Your task to perform on an android device: turn notification dots on Image 0: 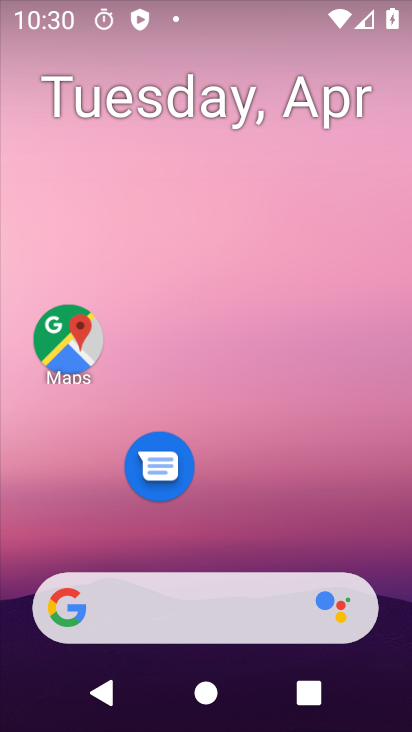
Step 0: drag from (251, 525) to (225, 118)
Your task to perform on an android device: turn notification dots on Image 1: 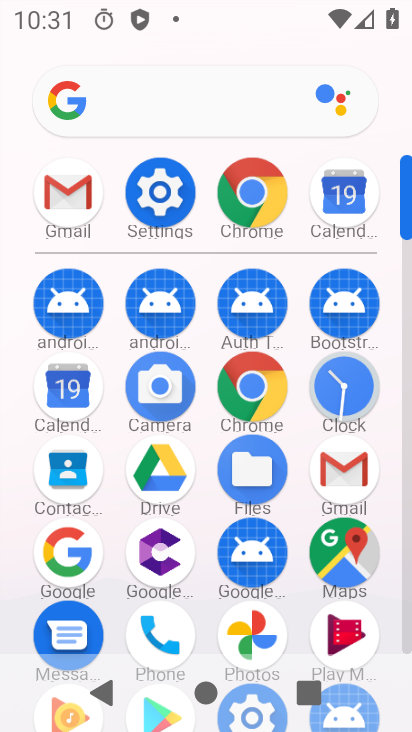
Step 1: click (158, 212)
Your task to perform on an android device: turn notification dots on Image 2: 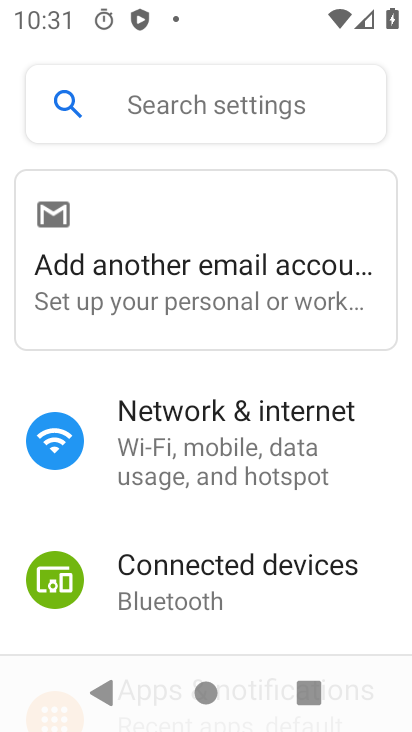
Step 2: drag from (201, 537) to (252, 174)
Your task to perform on an android device: turn notification dots on Image 3: 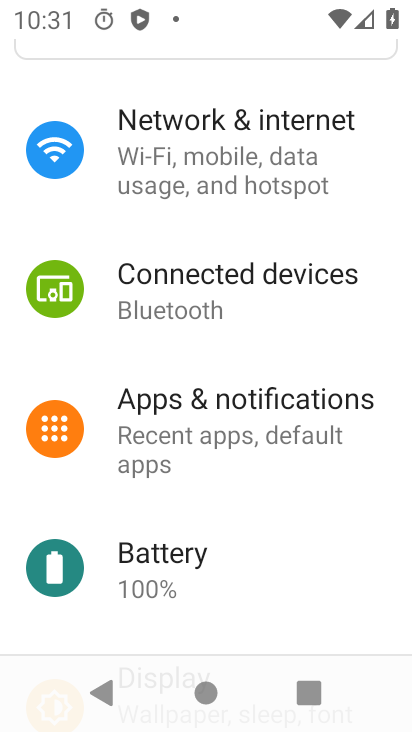
Step 3: drag from (238, 490) to (268, 198)
Your task to perform on an android device: turn notification dots on Image 4: 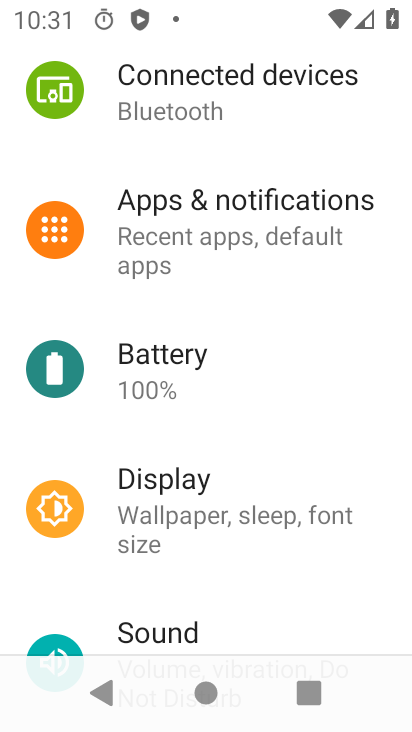
Step 4: drag from (240, 558) to (255, 181)
Your task to perform on an android device: turn notification dots on Image 5: 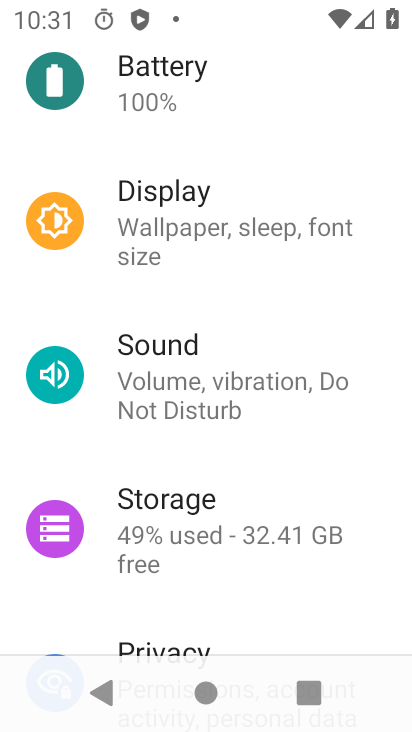
Step 5: drag from (209, 414) to (209, 184)
Your task to perform on an android device: turn notification dots on Image 6: 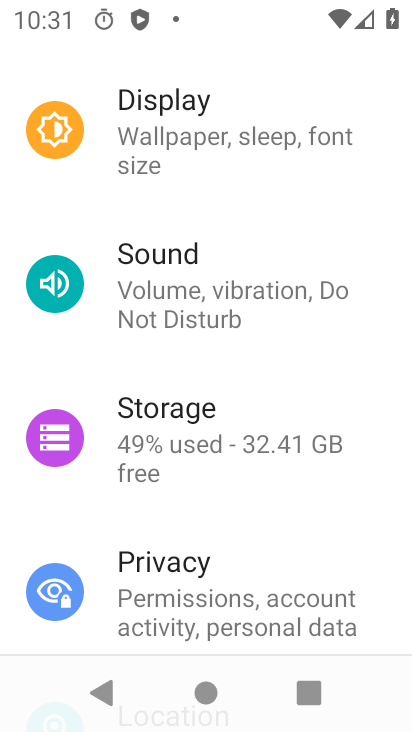
Step 6: drag from (172, 528) to (237, 218)
Your task to perform on an android device: turn notification dots on Image 7: 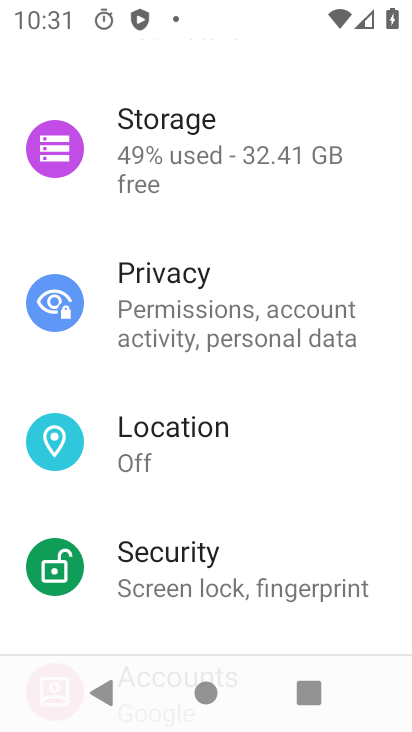
Step 7: click (237, 455)
Your task to perform on an android device: turn notification dots on Image 8: 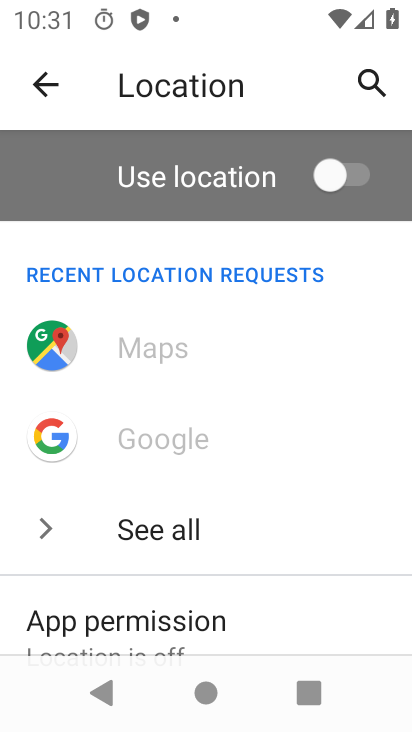
Step 8: drag from (240, 586) to (266, 241)
Your task to perform on an android device: turn notification dots on Image 9: 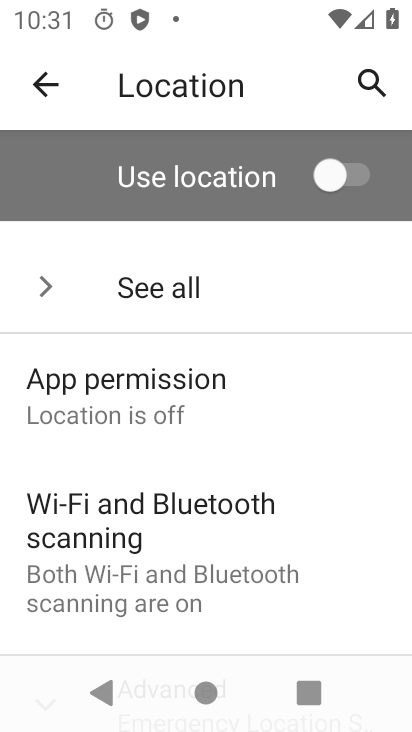
Step 9: drag from (222, 509) to (234, 342)
Your task to perform on an android device: turn notification dots on Image 10: 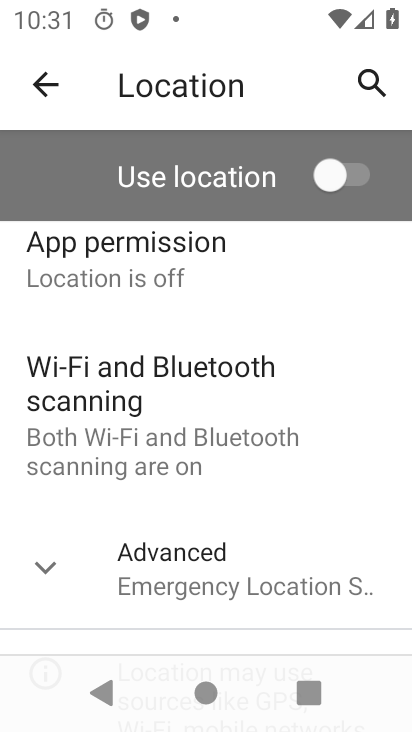
Step 10: drag from (233, 510) to (271, 287)
Your task to perform on an android device: turn notification dots on Image 11: 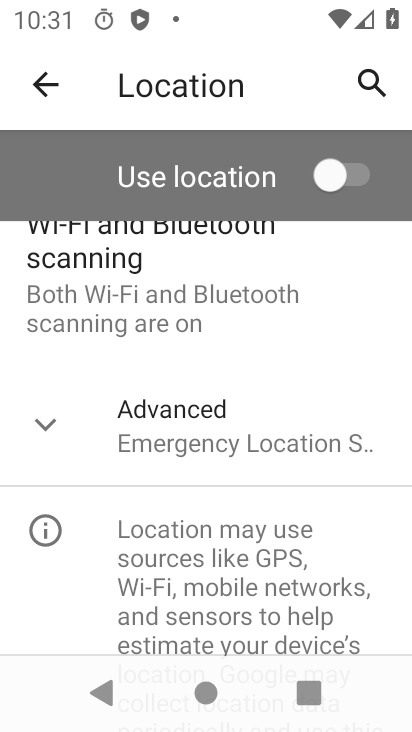
Step 11: click (212, 443)
Your task to perform on an android device: turn notification dots on Image 12: 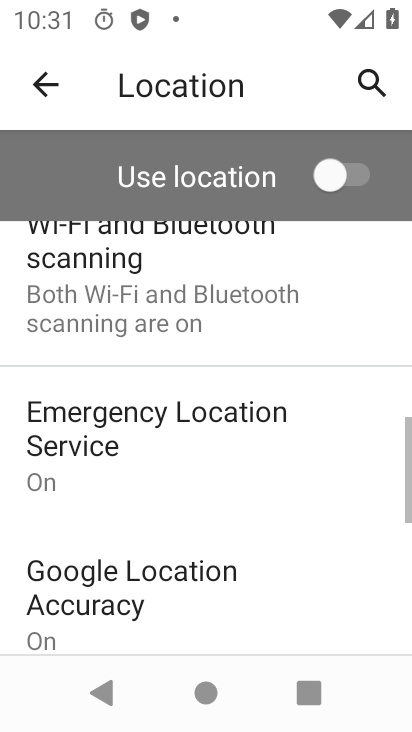
Step 12: drag from (219, 543) to (242, 363)
Your task to perform on an android device: turn notification dots on Image 13: 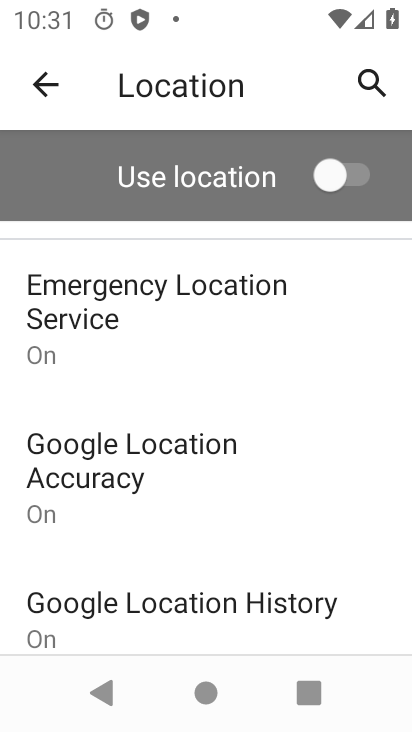
Step 13: drag from (197, 521) to (205, 468)
Your task to perform on an android device: turn notification dots on Image 14: 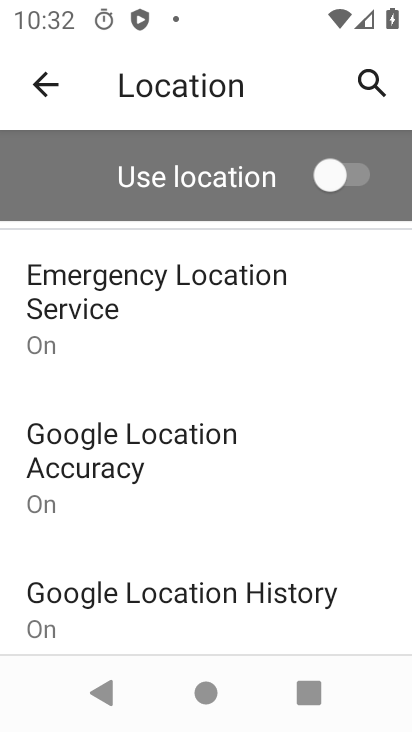
Step 14: click (167, 585)
Your task to perform on an android device: turn notification dots on Image 15: 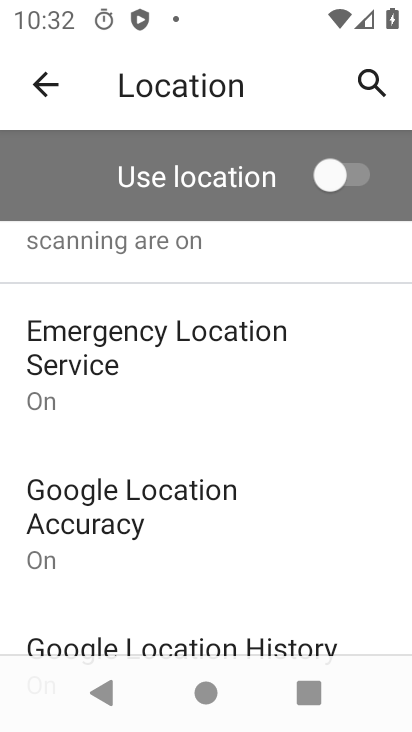
Step 15: drag from (191, 328) to (191, 519)
Your task to perform on an android device: turn notification dots on Image 16: 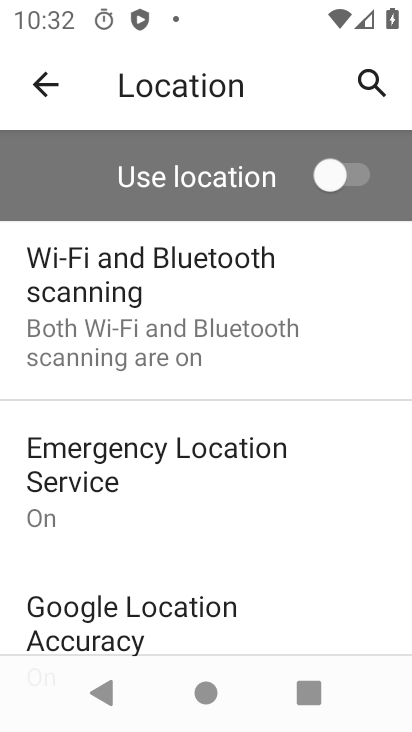
Step 16: drag from (208, 346) to (192, 630)
Your task to perform on an android device: turn notification dots on Image 17: 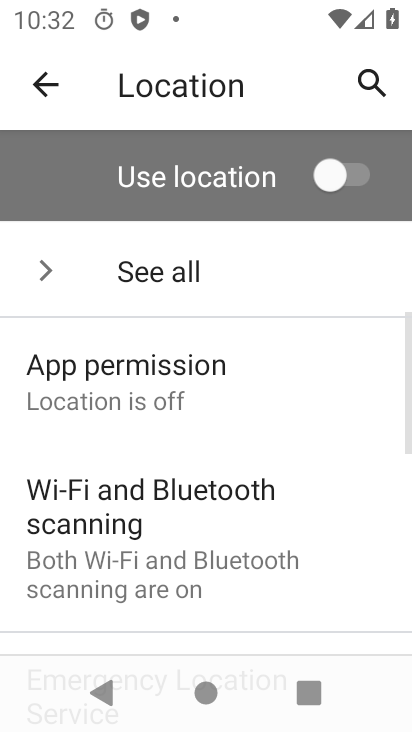
Step 17: drag from (235, 316) to (213, 469)
Your task to perform on an android device: turn notification dots on Image 18: 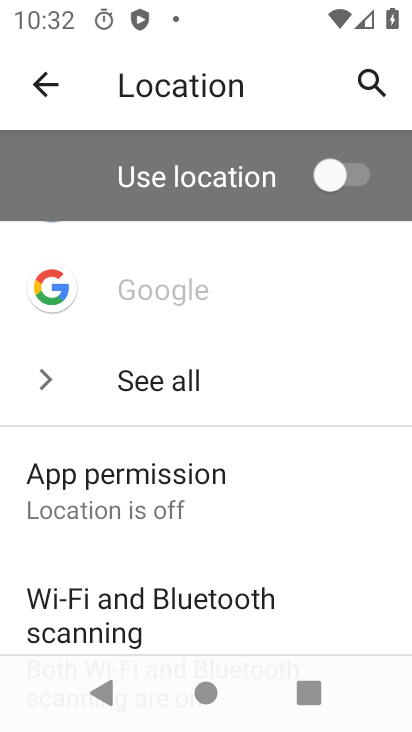
Step 18: click (211, 680)
Your task to perform on an android device: turn notification dots on Image 19: 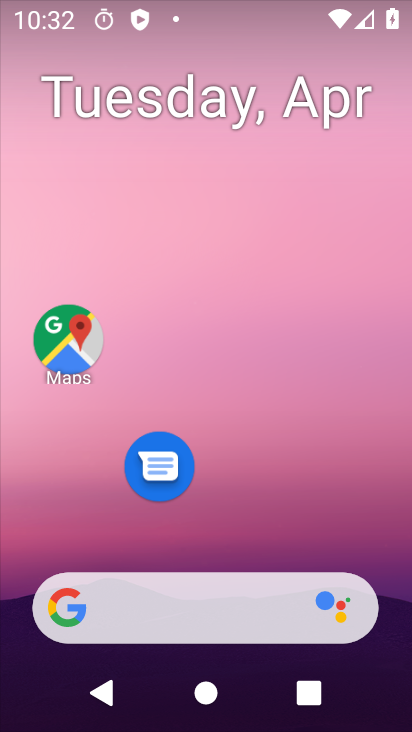
Step 19: drag from (281, 530) to (294, 84)
Your task to perform on an android device: turn notification dots on Image 20: 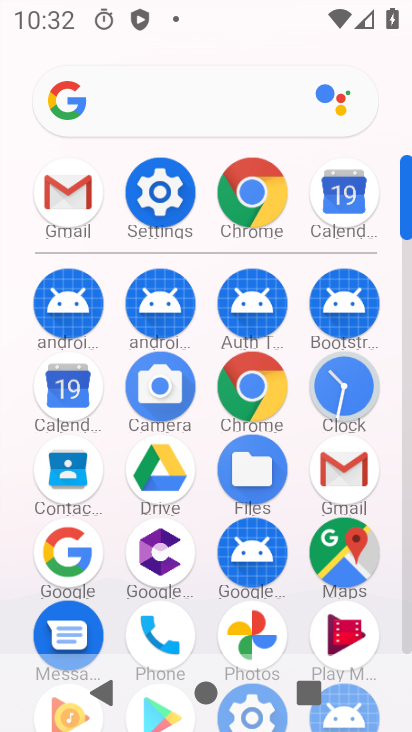
Step 20: click (176, 211)
Your task to perform on an android device: turn notification dots on Image 21: 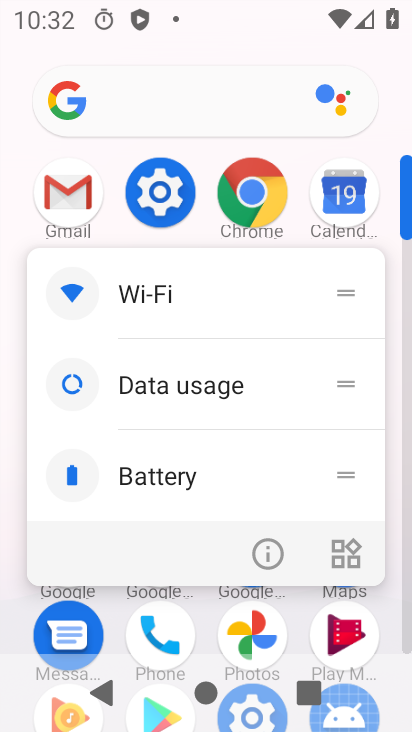
Step 21: click (176, 211)
Your task to perform on an android device: turn notification dots on Image 22: 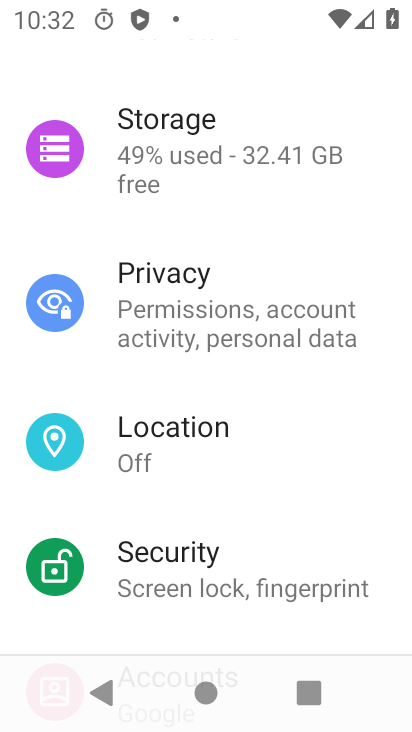
Step 22: drag from (243, 435) to (196, 576)
Your task to perform on an android device: turn notification dots on Image 23: 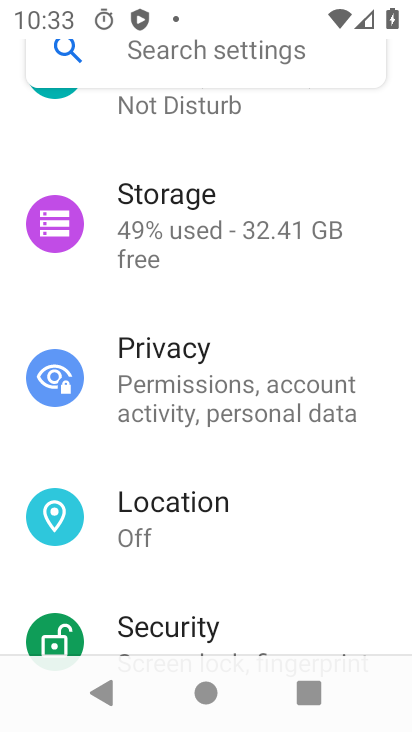
Step 23: drag from (276, 313) to (261, 628)
Your task to perform on an android device: turn notification dots on Image 24: 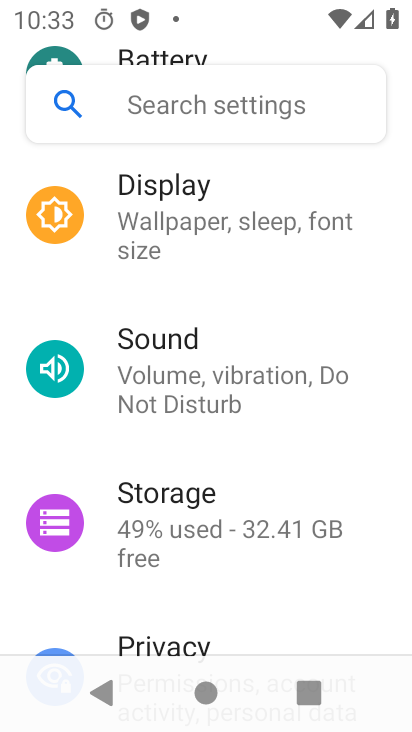
Step 24: drag from (242, 289) to (234, 628)
Your task to perform on an android device: turn notification dots on Image 25: 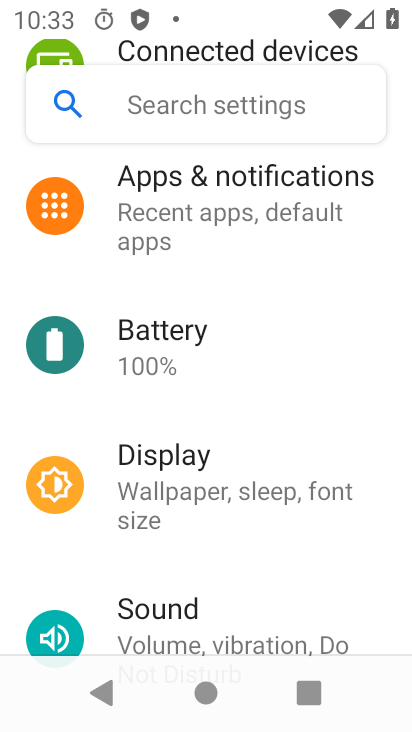
Step 25: click (273, 234)
Your task to perform on an android device: turn notification dots on Image 26: 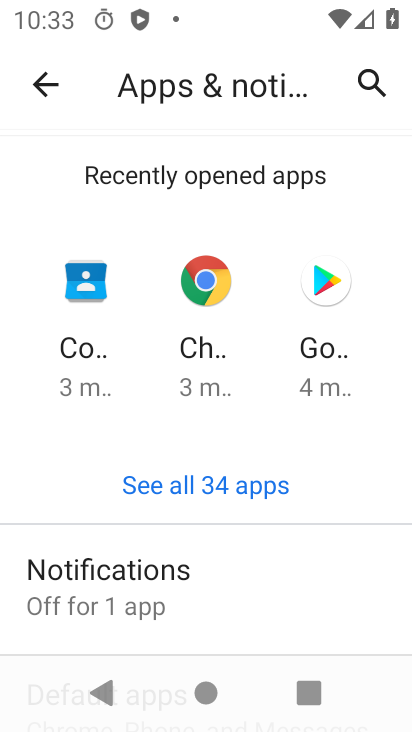
Step 26: drag from (267, 562) to (311, 184)
Your task to perform on an android device: turn notification dots on Image 27: 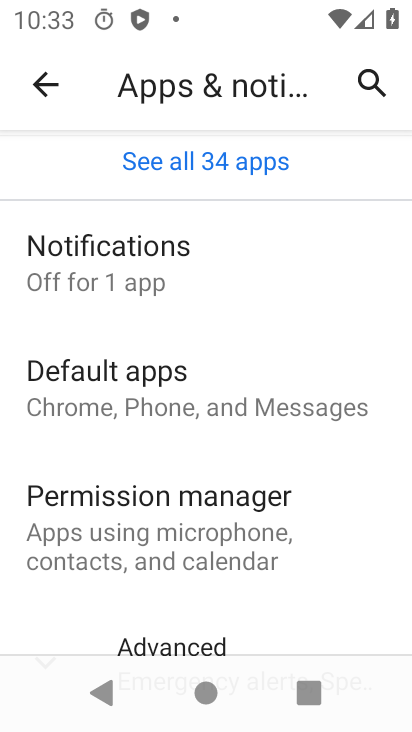
Step 27: click (221, 272)
Your task to perform on an android device: turn notification dots on Image 28: 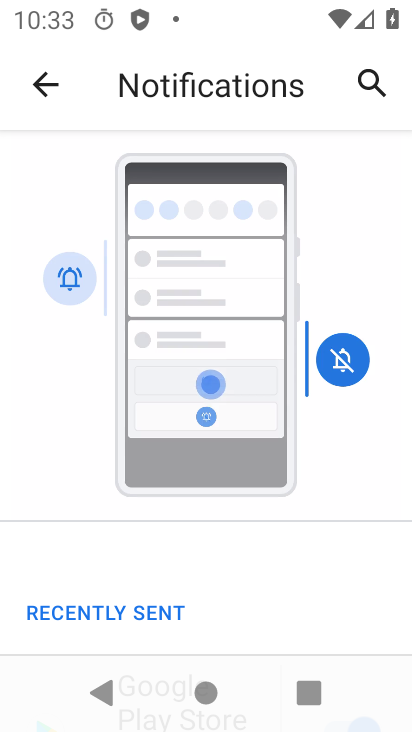
Step 28: drag from (264, 558) to (284, 242)
Your task to perform on an android device: turn notification dots on Image 29: 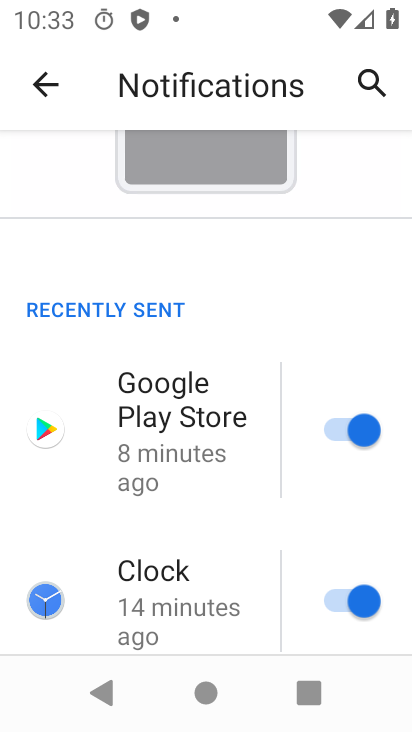
Step 29: drag from (220, 484) to (235, 123)
Your task to perform on an android device: turn notification dots on Image 30: 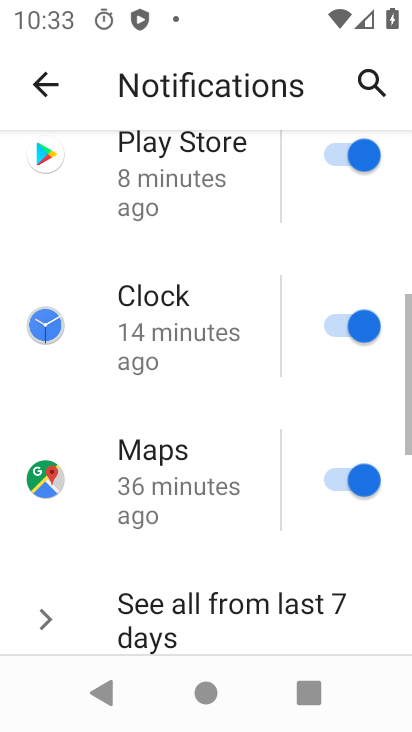
Step 30: drag from (188, 541) to (197, 278)
Your task to perform on an android device: turn notification dots on Image 31: 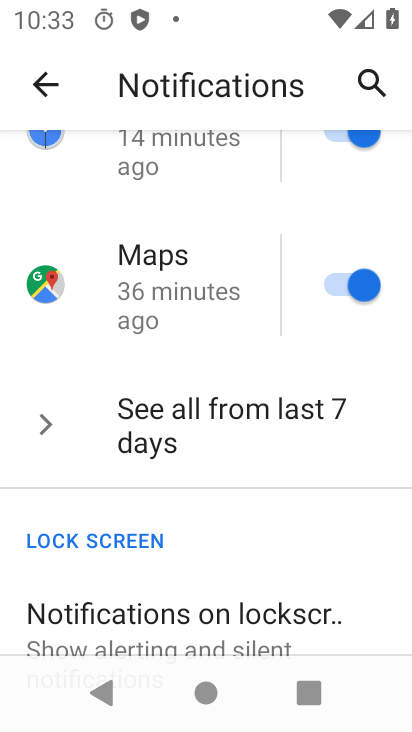
Step 31: drag from (202, 584) to (222, 119)
Your task to perform on an android device: turn notification dots on Image 32: 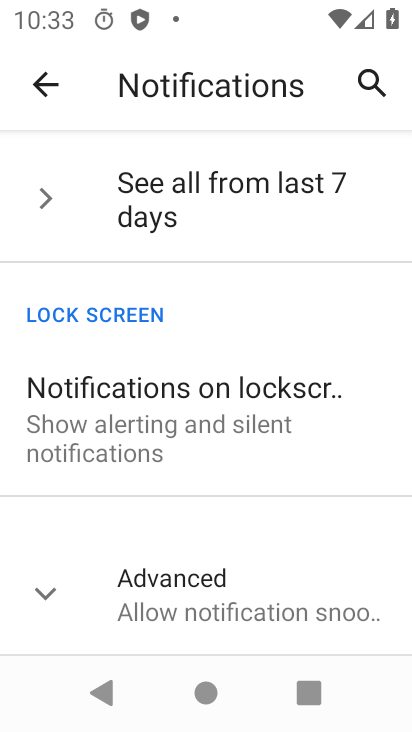
Step 32: click (190, 589)
Your task to perform on an android device: turn notification dots on Image 33: 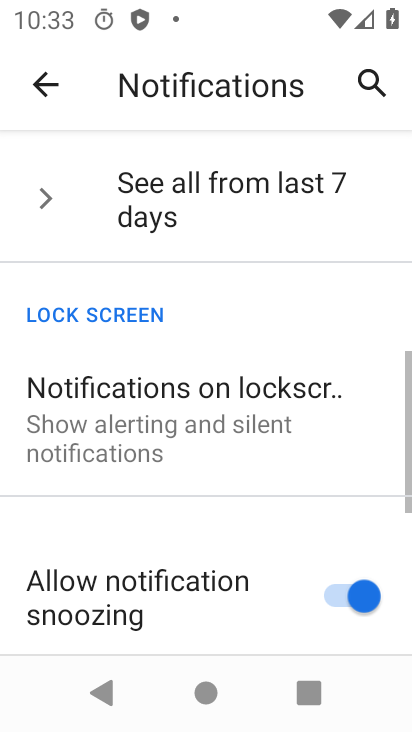
Step 33: drag from (212, 523) to (242, 315)
Your task to perform on an android device: turn notification dots on Image 34: 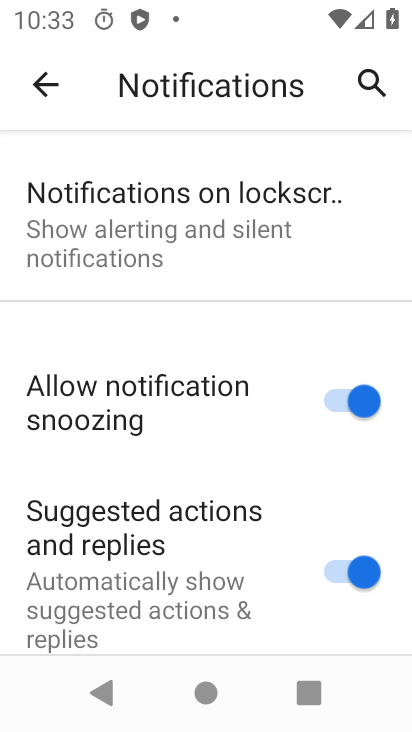
Step 34: drag from (191, 557) to (199, 223)
Your task to perform on an android device: turn notification dots on Image 35: 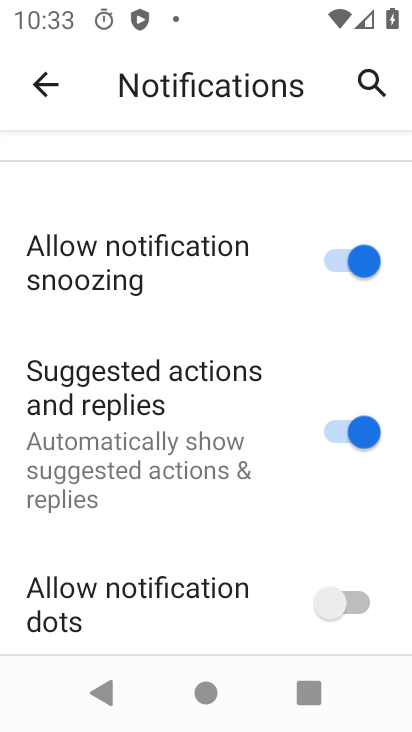
Step 35: click (333, 589)
Your task to perform on an android device: turn notification dots on Image 36: 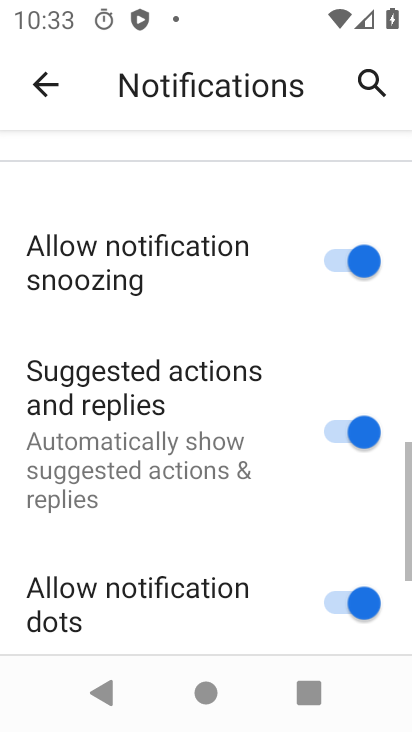
Step 36: task complete